Your task to perform on an android device: turn notification dots on Image 0: 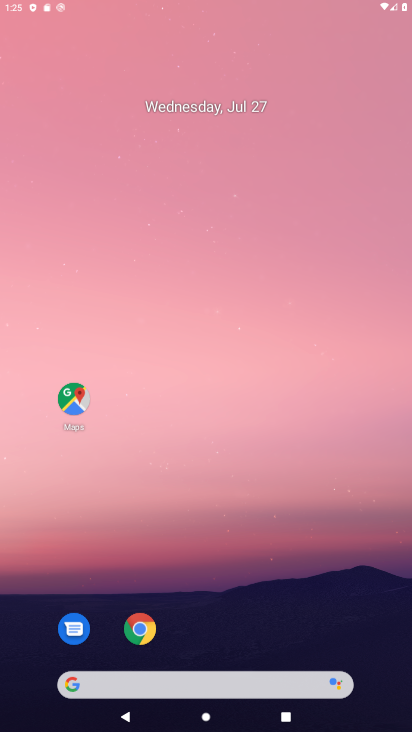
Step 0: press home button
Your task to perform on an android device: turn notification dots on Image 1: 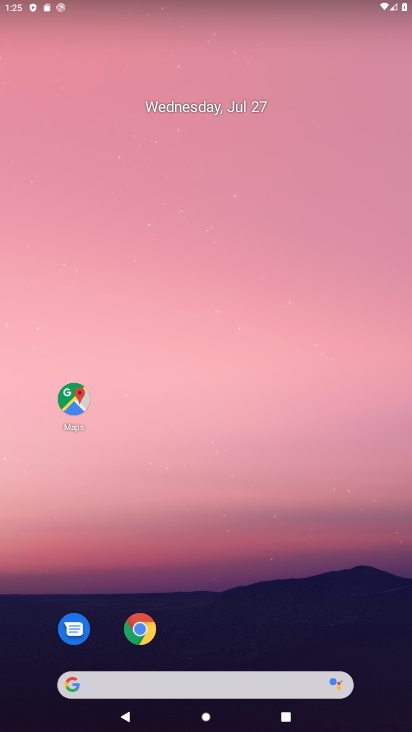
Step 1: drag from (210, 560) to (256, 59)
Your task to perform on an android device: turn notification dots on Image 2: 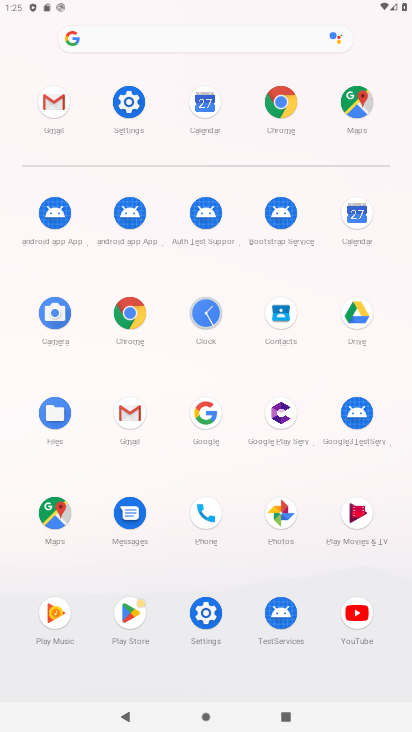
Step 2: click (128, 102)
Your task to perform on an android device: turn notification dots on Image 3: 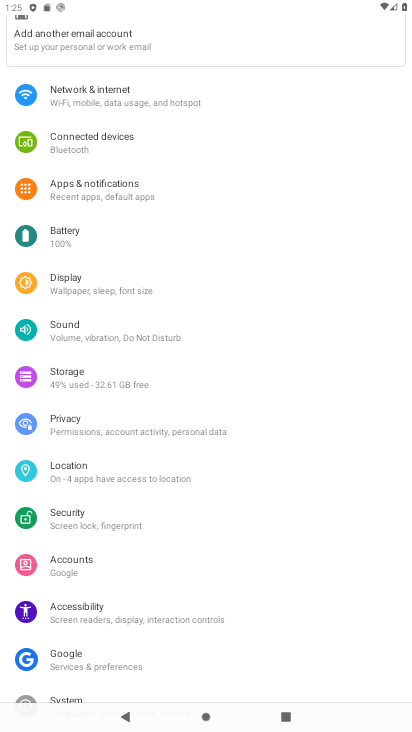
Step 3: click (80, 187)
Your task to perform on an android device: turn notification dots on Image 4: 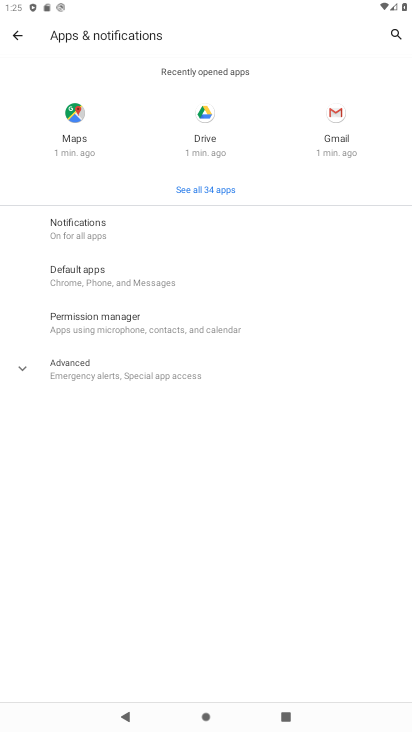
Step 4: click (69, 231)
Your task to perform on an android device: turn notification dots on Image 5: 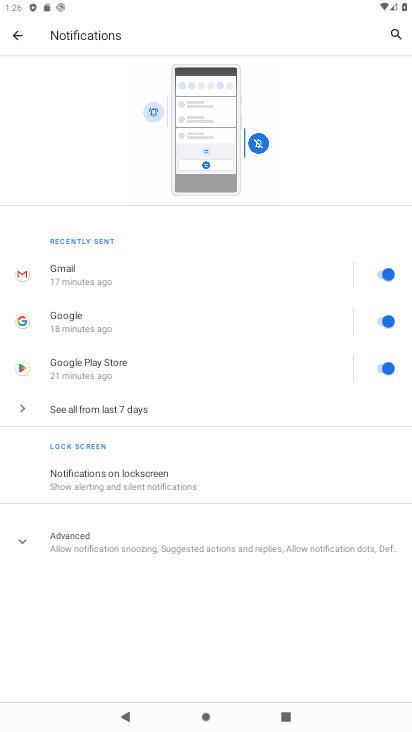
Step 5: click (68, 537)
Your task to perform on an android device: turn notification dots on Image 6: 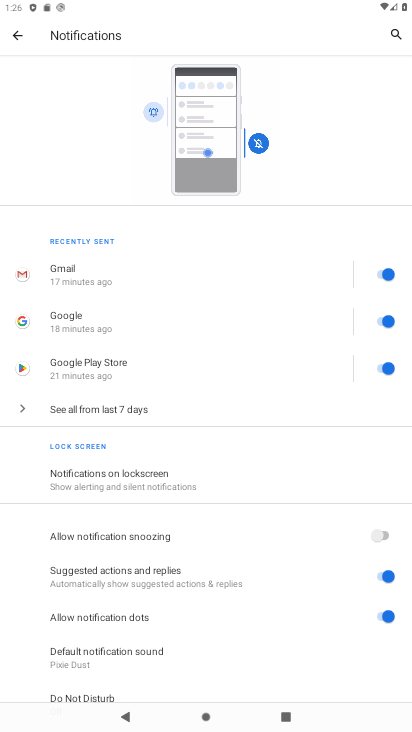
Step 6: task complete